Your task to perform on an android device: turn on bluetooth scan Image 0: 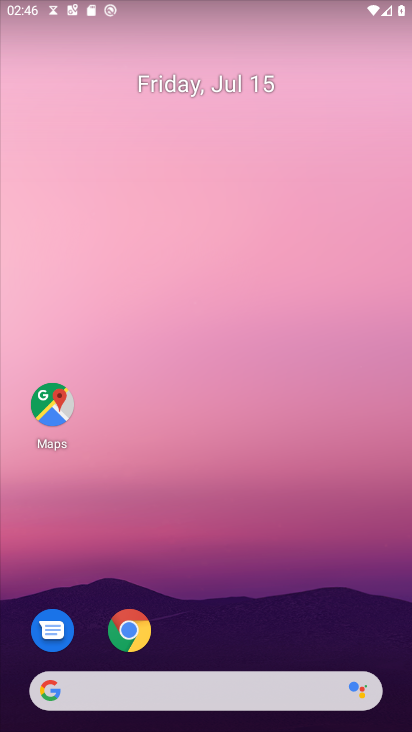
Step 0: drag from (275, 564) to (219, 0)
Your task to perform on an android device: turn on bluetooth scan Image 1: 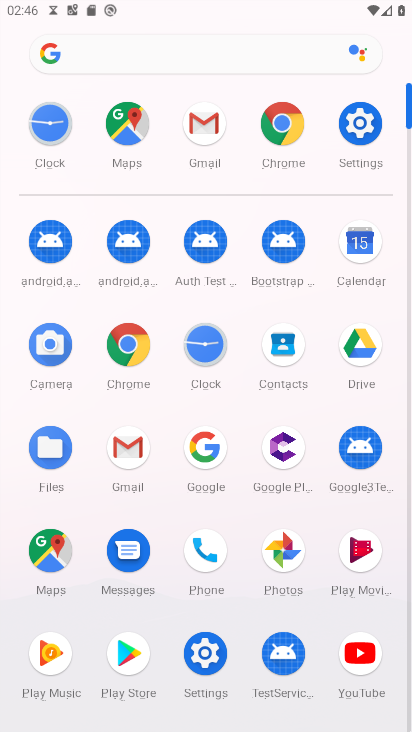
Step 1: click (357, 127)
Your task to perform on an android device: turn on bluetooth scan Image 2: 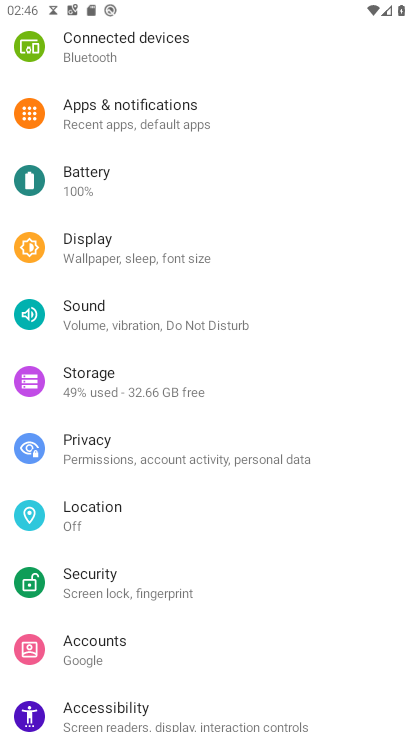
Step 2: click (79, 532)
Your task to perform on an android device: turn on bluetooth scan Image 3: 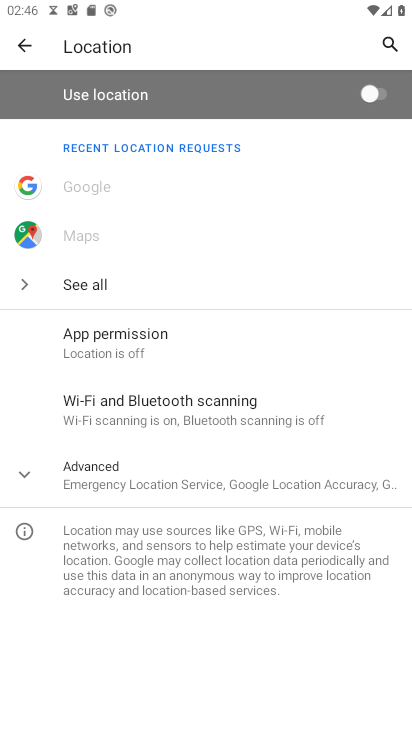
Step 3: click (148, 425)
Your task to perform on an android device: turn on bluetooth scan Image 4: 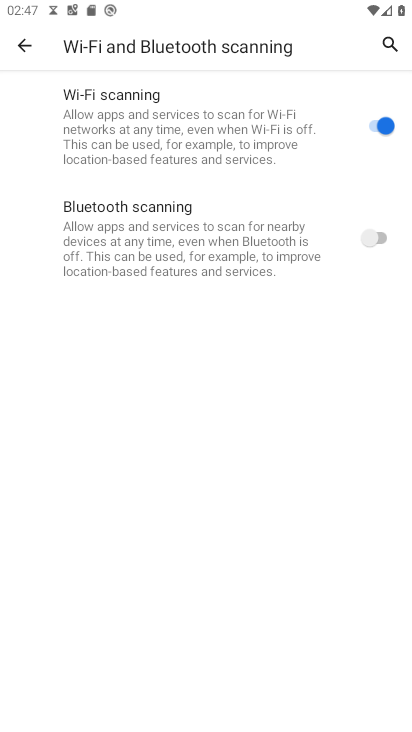
Step 4: click (377, 240)
Your task to perform on an android device: turn on bluetooth scan Image 5: 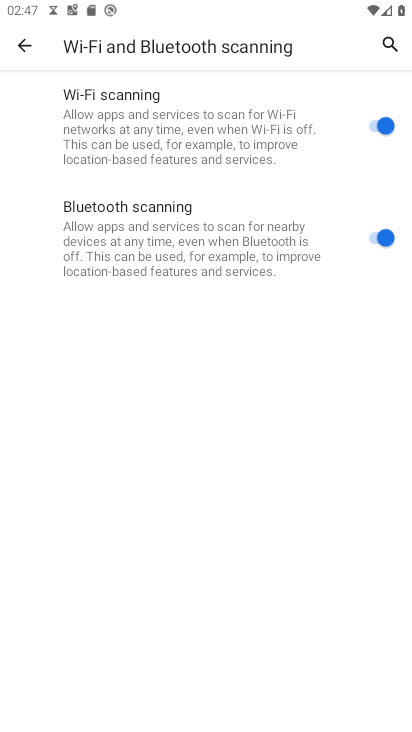
Step 5: task complete